Your task to perform on an android device: turn notification dots on Image 0: 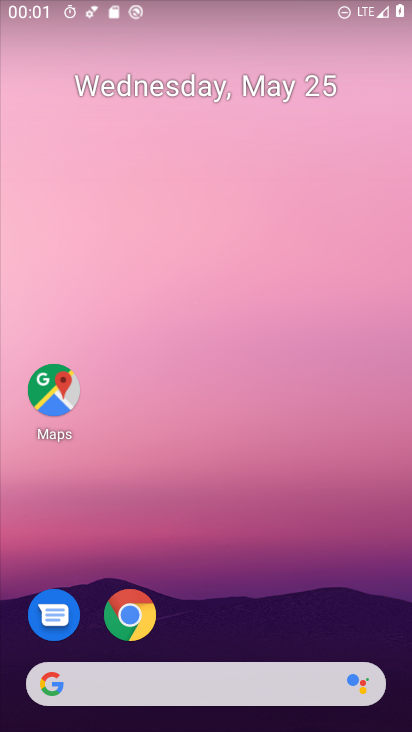
Step 0: press home button
Your task to perform on an android device: turn notification dots on Image 1: 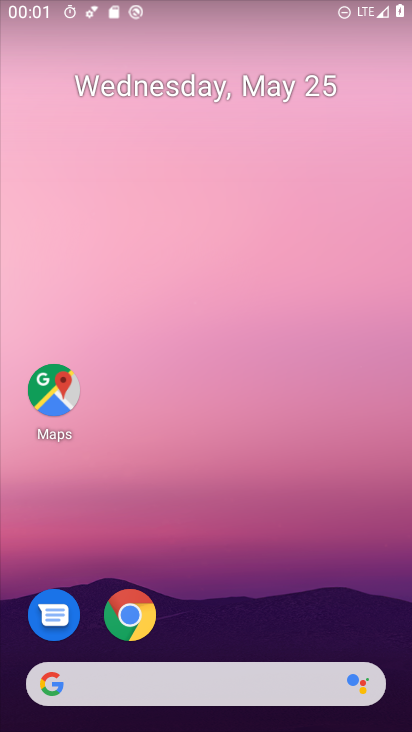
Step 1: drag from (235, 698) to (373, 24)
Your task to perform on an android device: turn notification dots on Image 2: 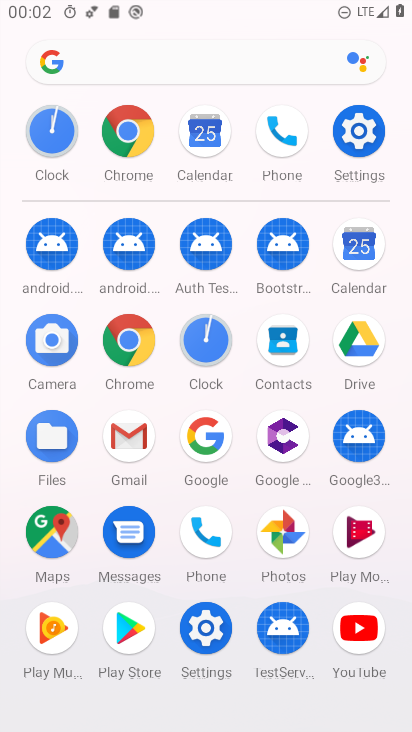
Step 2: click (372, 136)
Your task to perform on an android device: turn notification dots on Image 3: 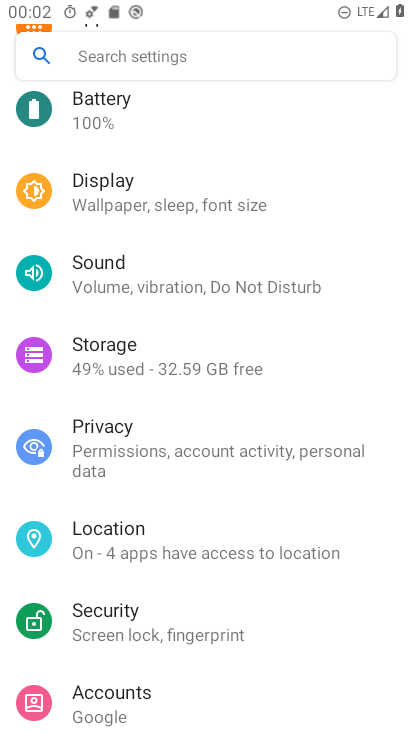
Step 3: click (200, 55)
Your task to perform on an android device: turn notification dots on Image 4: 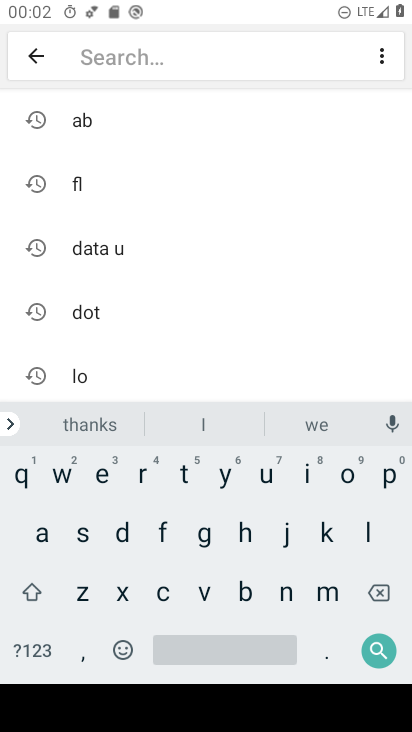
Step 4: click (114, 538)
Your task to perform on an android device: turn notification dots on Image 5: 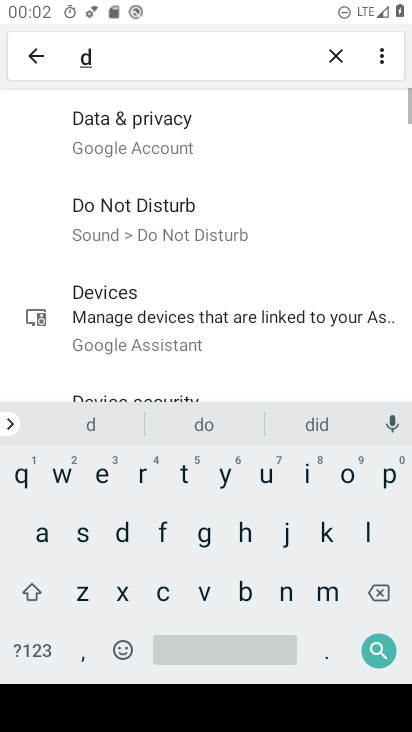
Step 5: click (347, 479)
Your task to perform on an android device: turn notification dots on Image 6: 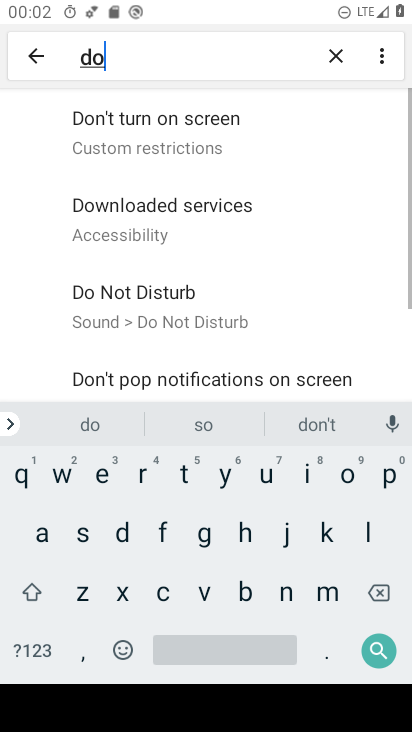
Step 6: click (188, 478)
Your task to perform on an android device: turn notification dots on Image 7: 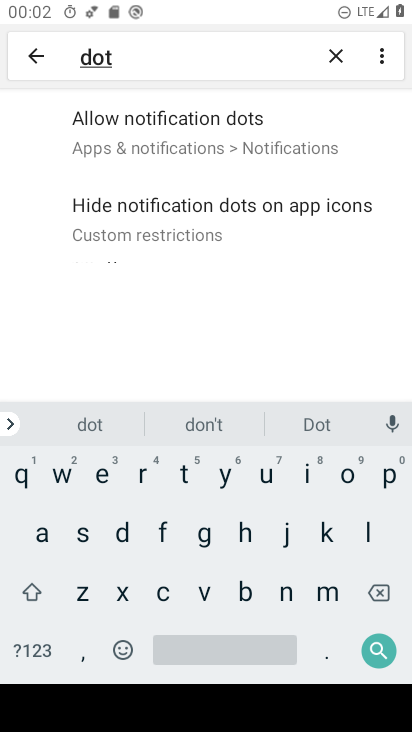
Step 7: click (208, 123)
Your task to perform on an android device: turn notification dots on Image 8: 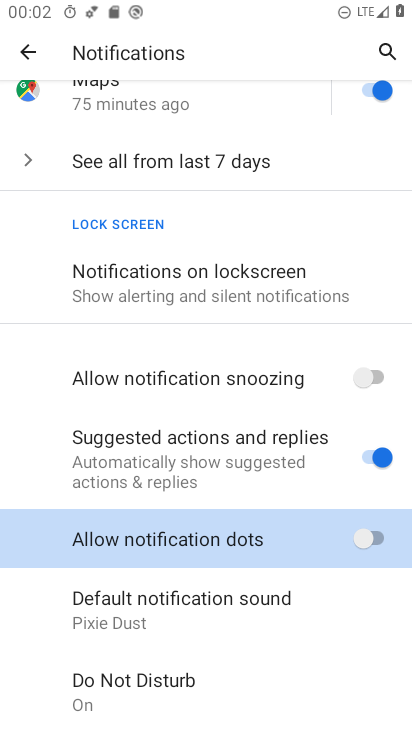
Step 8: click (327, 540)
Your task to perform on an android device: turn notification dots on Image 9: 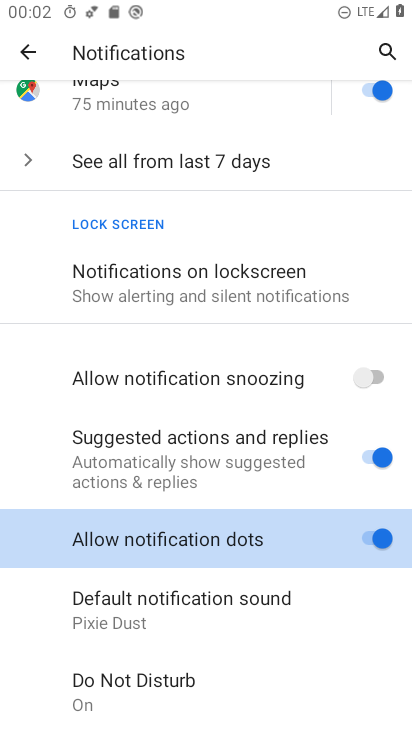
Step 9: task complete